Your task to perform on an android device: turn on sleep mode Image 0: 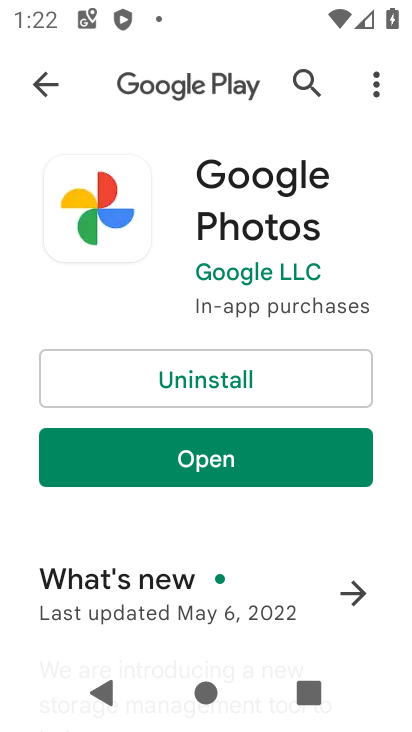
Step 0: press home button
Your task to perform on an android device: turn on sleep mode Image 1: 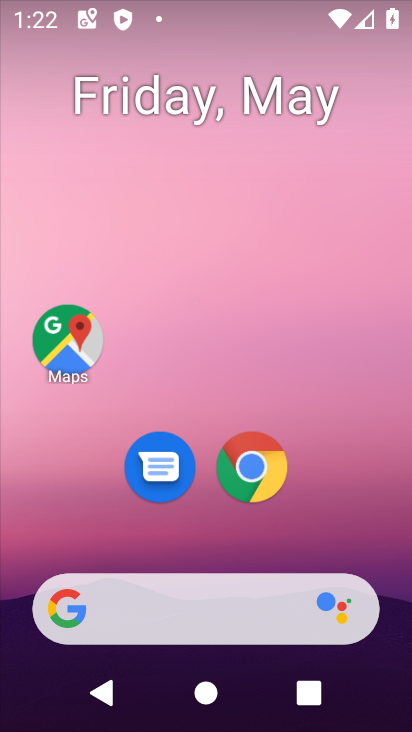
Step 1: drag from (330, 519) to (361, 3)
Your task to perform on an android device: turn on sleep mode Image 2: 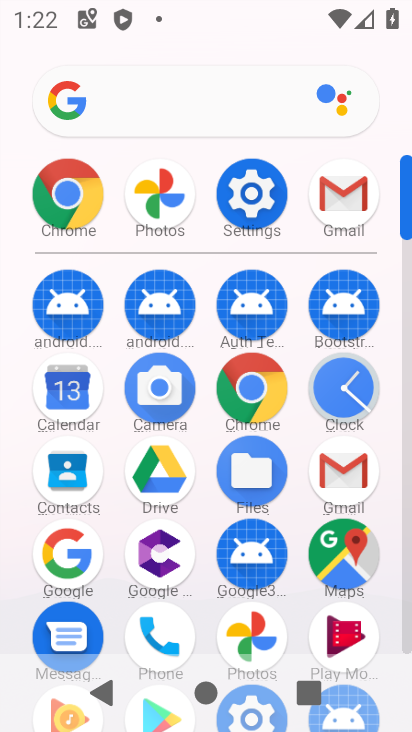
Step 2: click (250, 207)
Your task to perform on an android device: turn on sleep mode Image 3: 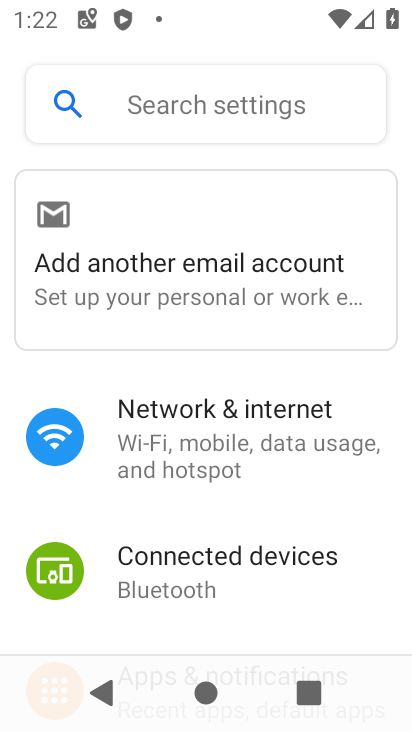
Step 3: drag from (226, 508) to (211, 320)
Your task to perform on an android device: turn on sleep mode Image 4: 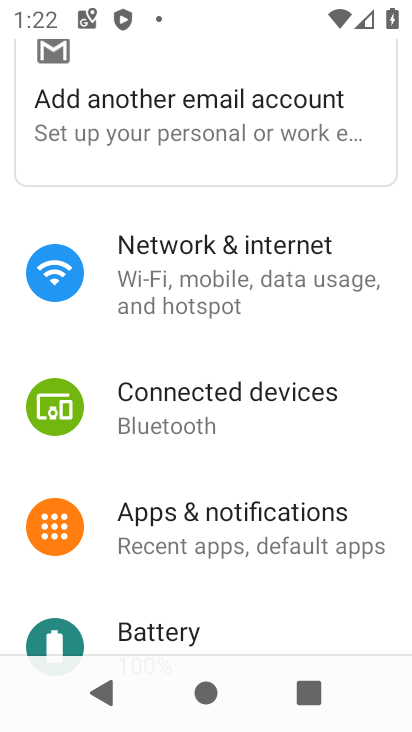
Step 4: drag from (205, 476) to (221, 265)
Your task to perform on an android device: turn on sleep mode Image 5: 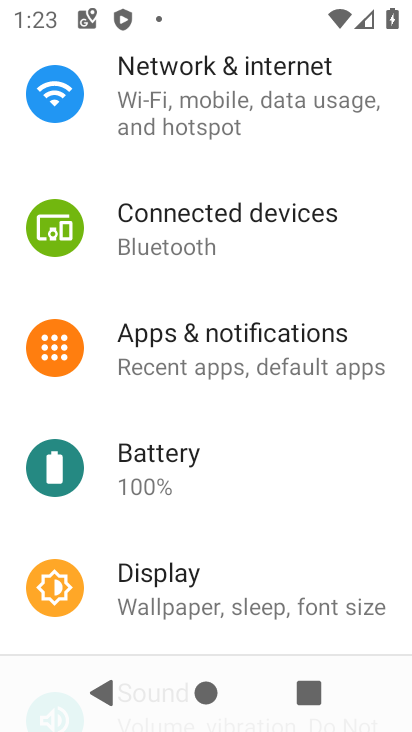
Step 5: click (163, 589)
Your task to perform on an android device: turn on sleep mode Image 6: 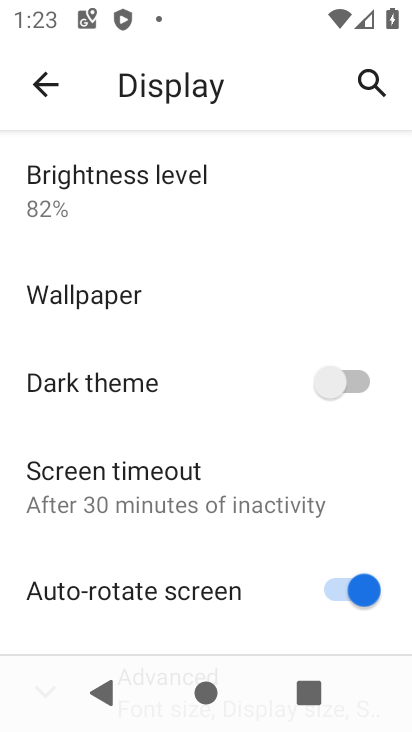
Step 6: task complete